Your task to perform on an android device: turn off location history Image 0: 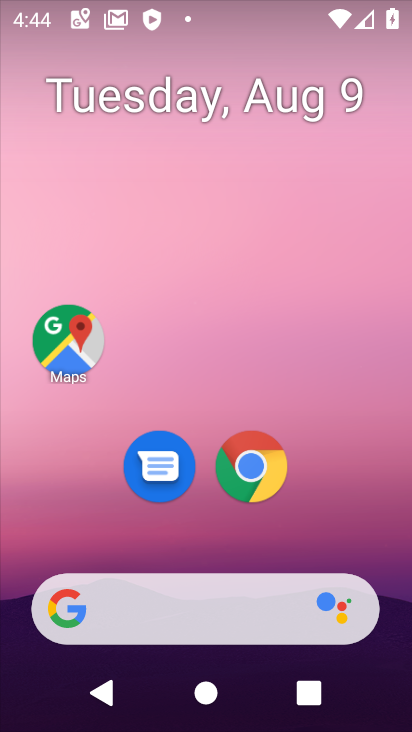
Step 0: drag from (190, 521) to (255, 37)
Your task to perform on an android device: turn off location history Image 1: 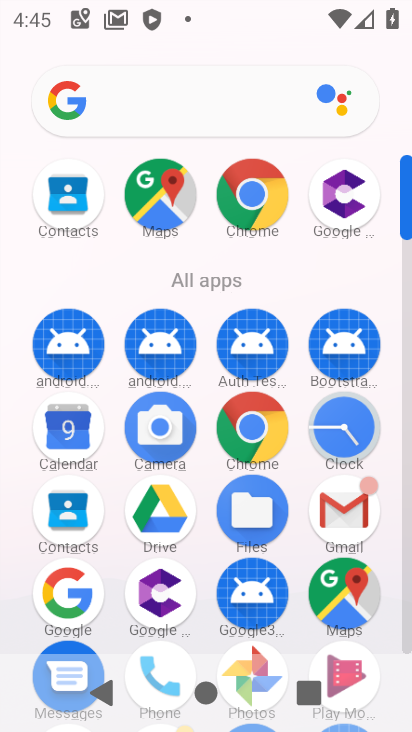
Step 1: drag from (208, 637) to (203, 142)
Your task to perform on an android device: turn off location history Image 2: 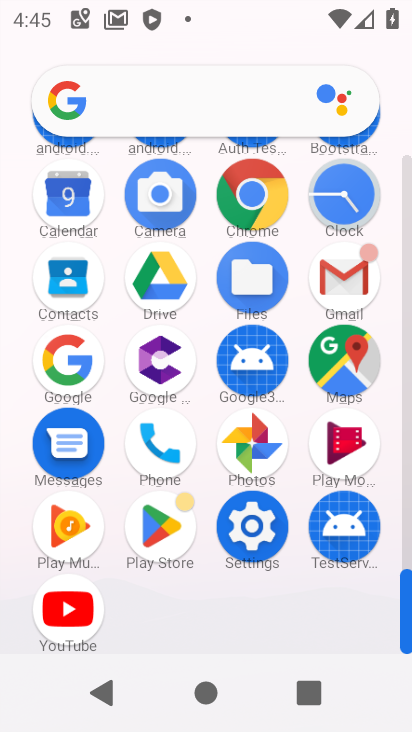
Step 2: click (244, 544)
Your task to perform on an android device: turn off location history Image 3: 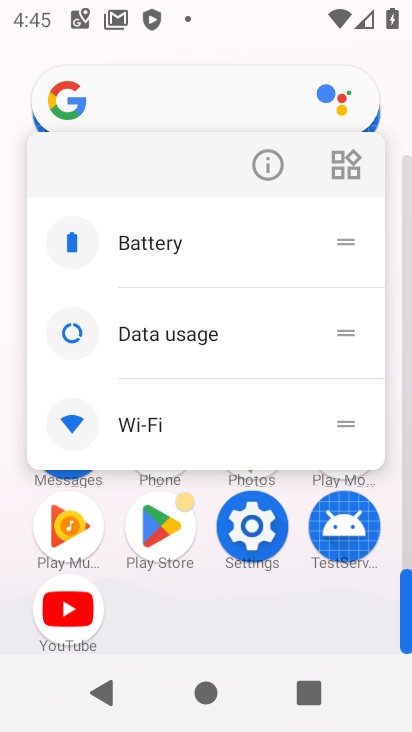
Step 3: click (264, 163)
Your task to perform on an android device: turn off location history Image 4: 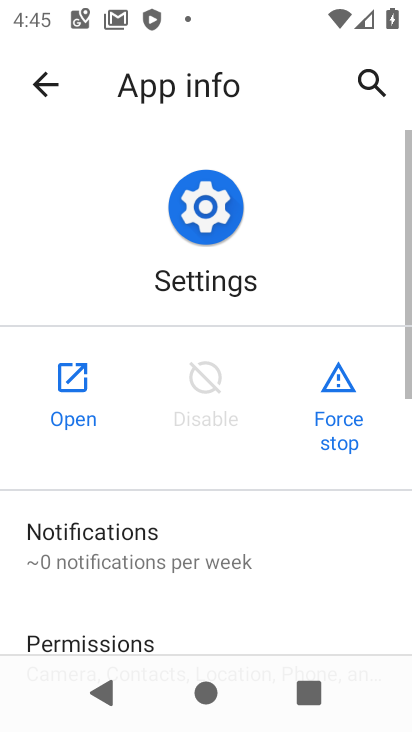
Step 4: click (61, 391)
Your task to perform on an android device: turn off location history Image 5: 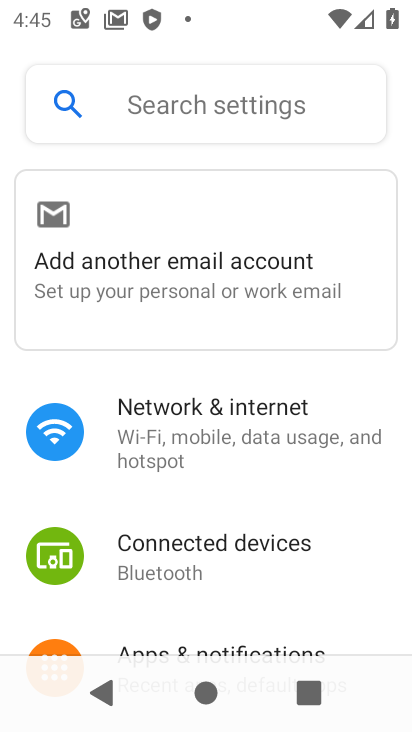
Step 5: drag from (196, 594) to (303, 4)
Your task to perform on an android device: turn off location history Image 6: 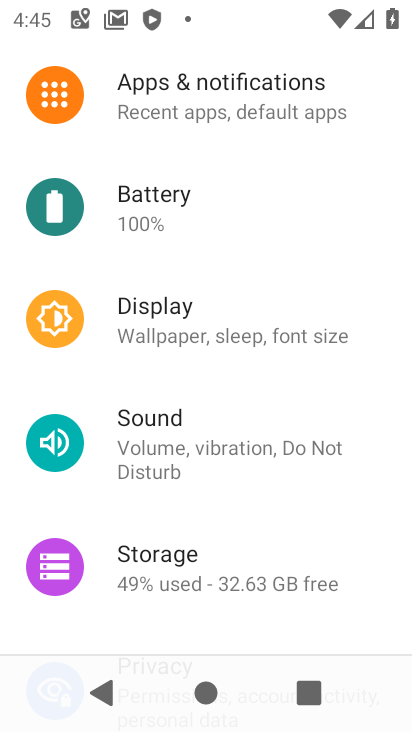
Step 6: drag from (183, 608) to (303, 138)
Your task to perform on an android device: turn off location history Image 7: 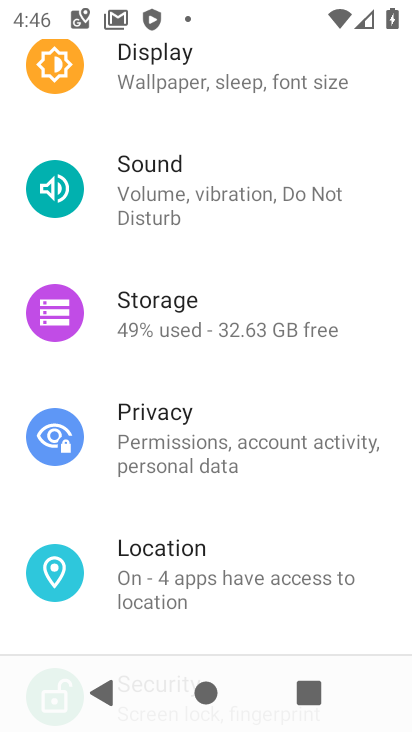
Step 7: click (150, 552)
Your task to perform on an android device: turn off location history Image 8: 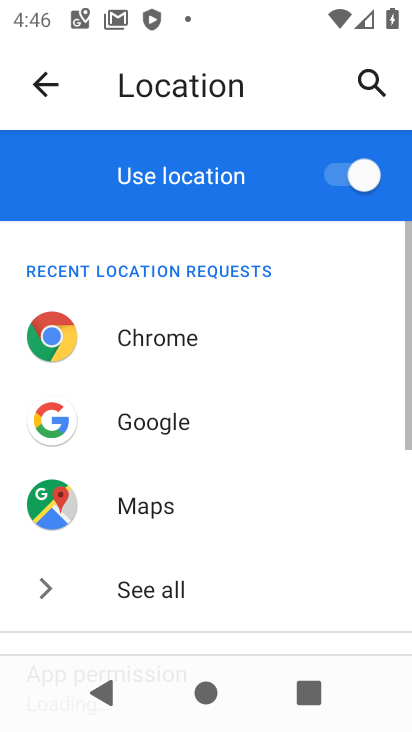
Step 8: drag from (150, 538) to (274, 137)
Your task to perform on an android device: turn off location history Image 9: 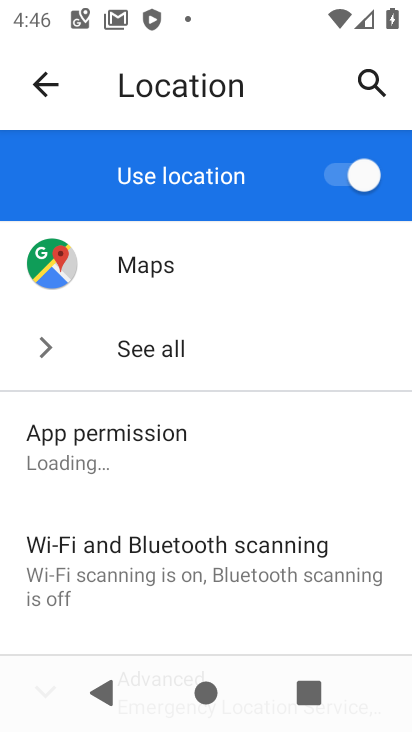
Step 9: drag from (133, 615) to (237, 165)
Your task to perform on an android device: turn off location history Image 10: 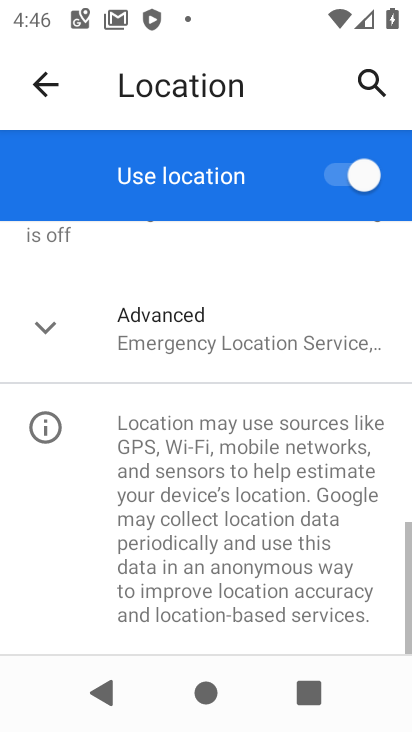
Step 10: click (155, 345)
Your task to perform on an android device: turn off location history Image 11: 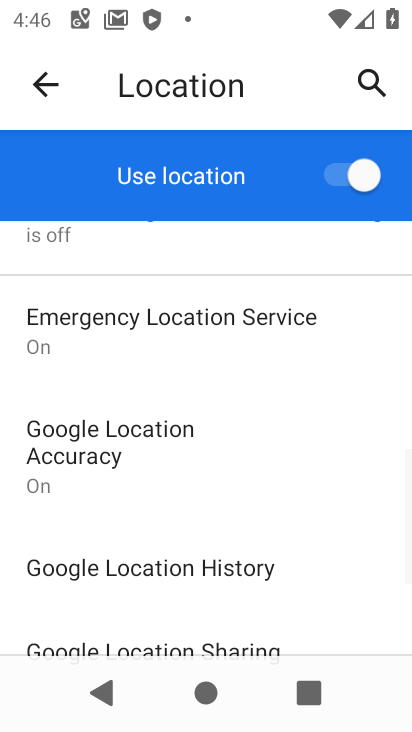
Step 11: drag from (177, 578) to (225, 315)
Your task to perform on an android device: turn off location history Image 12: 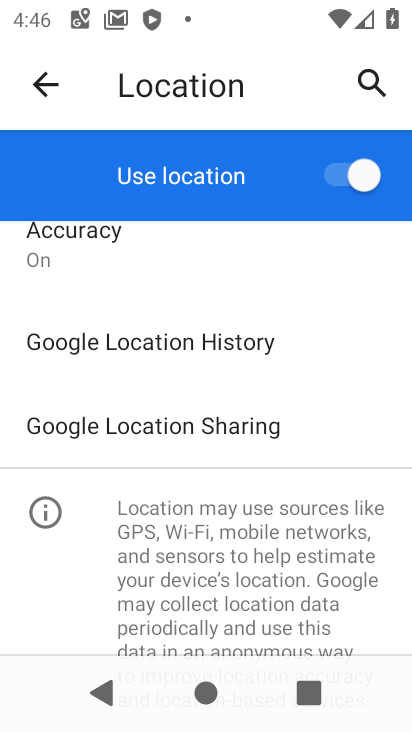
Step 12: click (156, 346)
Your task to perform on an android device: turn off location history Image 13: 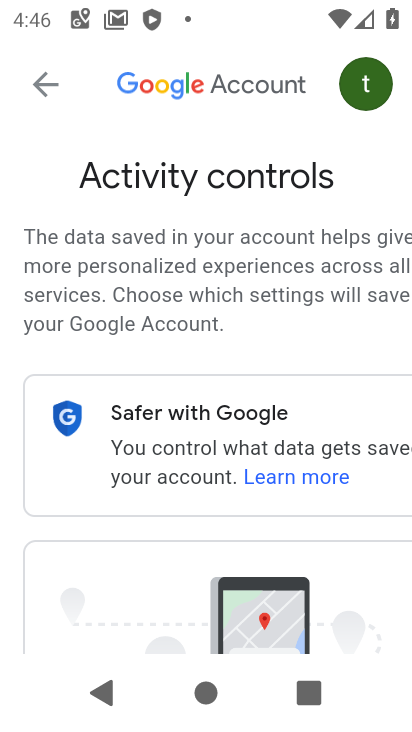
Step 13: drag from (189, 633) to (323, 337)
Your task to perform on an android device: turn off location history Image 14: 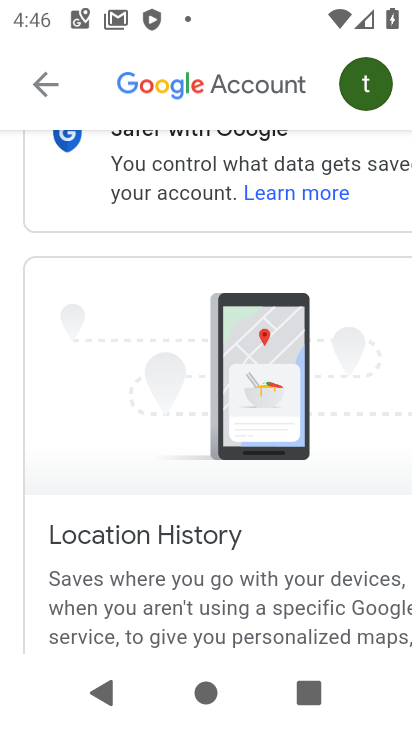
Step 14: drag from (185, 552) to (223, 382)
Your task to perform on an android device: turn off location history Image 15: 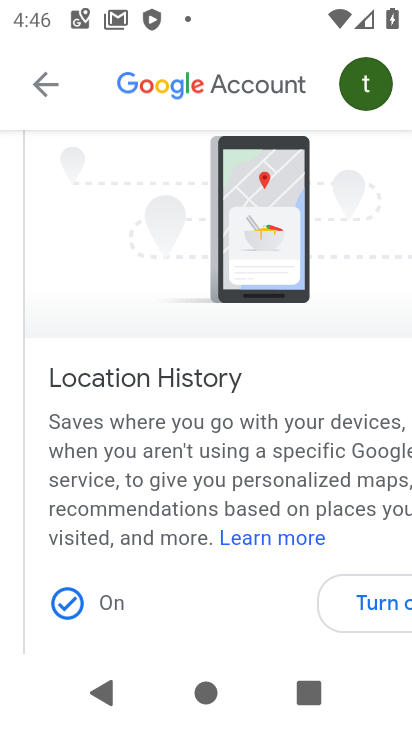
Step 15: drag from (245, 461) to (344, 141)
Your task to perform on an android device: turn off location history Image 16: 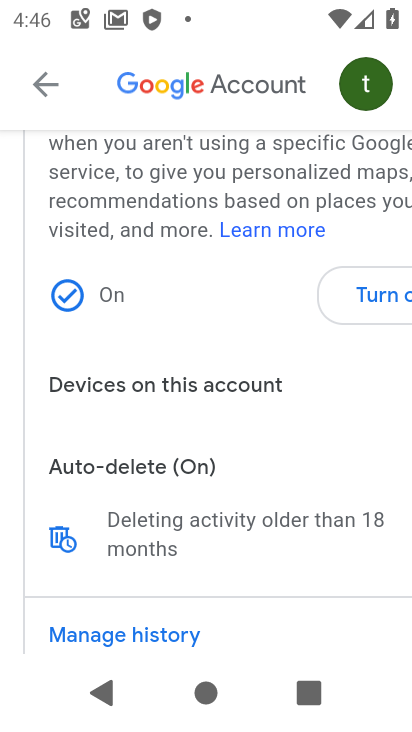
Step 16: click (355, 300)
Your task to perform on an android device: turn off location history Image 17: 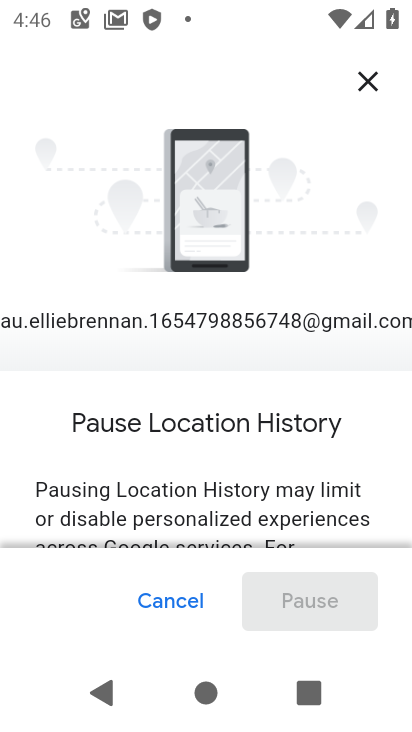
Step 17: drag from (242, 583) to (310, 299)
Your task to perform on an android device: turn off location history Image 18: 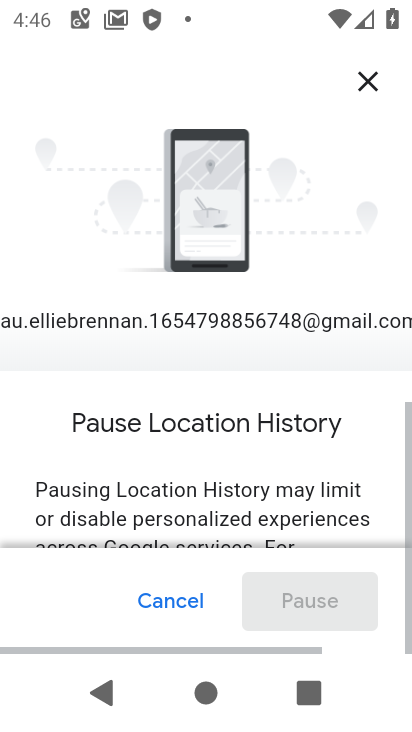
Step 18: drag from (198, 479) to (347, 20)
Your task to perform on an android device: turn off location history Image 19: 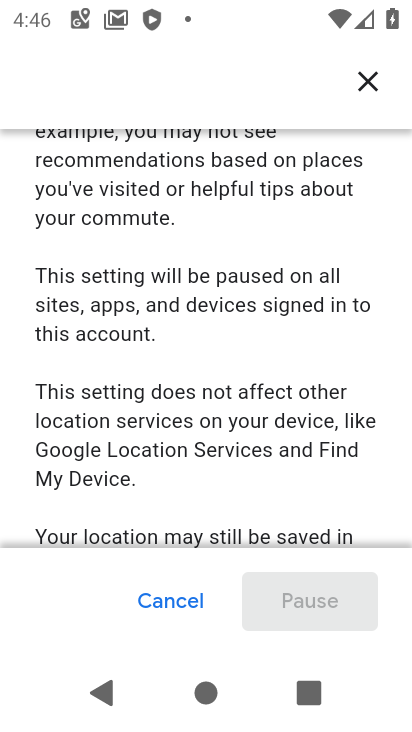
Step 19: drag from (228, 472) to (305, 150)
Your task to perform on an android device: turn off location history Image 20: 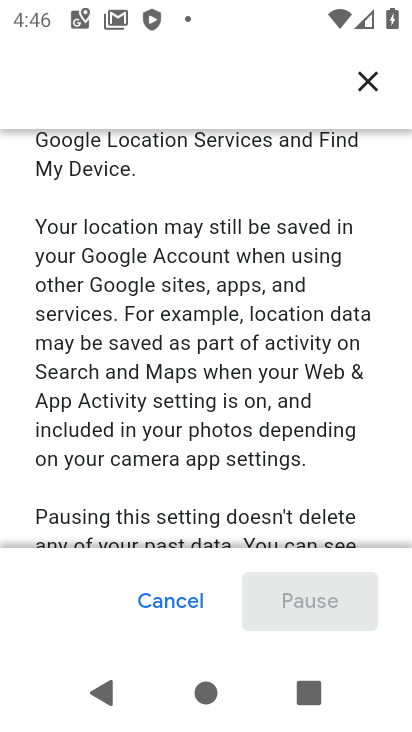
Step 20: drag from (178, 509) to (241, 298)
Your task to perform on an android device: turn off location history Image 21: 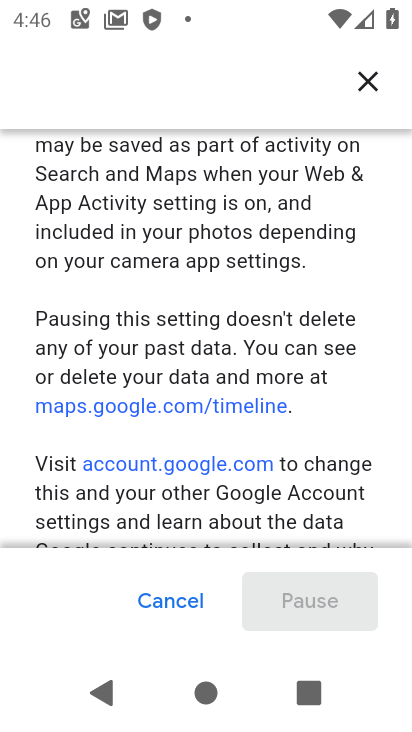
Step 21: drag from (154, 450) to (321, 216)
Your task to perform on an android device: turn off location history Image 22: 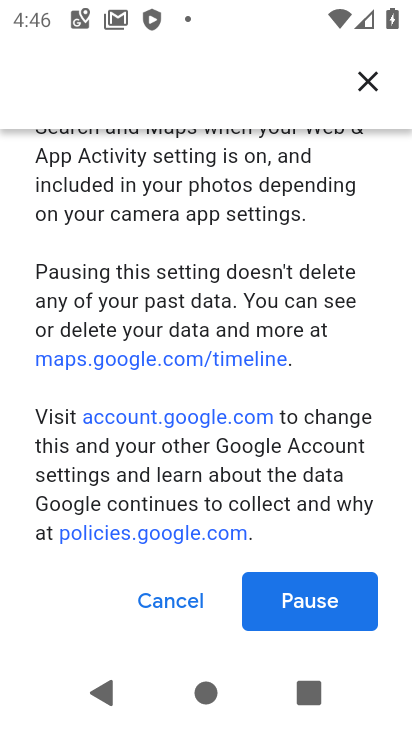
Step 22: click (302, 610)
Your task to perform on an android device: turn off location history Image 23: 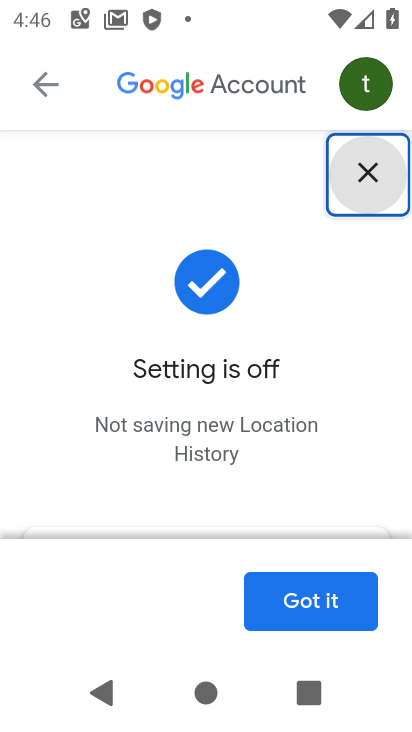
Step 23: click (290, 609)
Your task to perform on an android device: turn off location history Image 24: 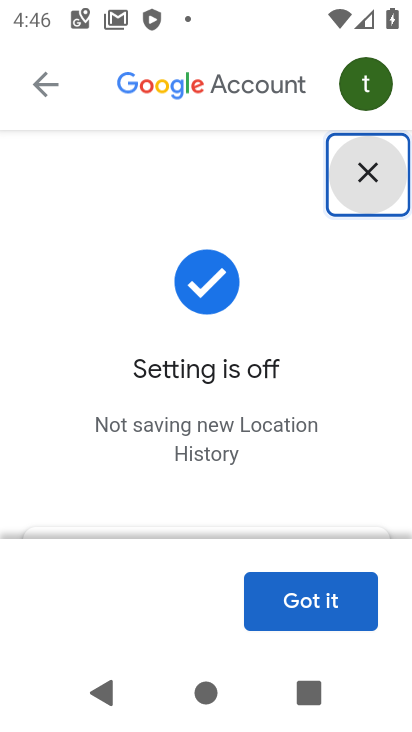
Step 24: task complete